Your task to perform on an android device: uninstall "Google Pay: Save, Pay, Manage" Image 0: 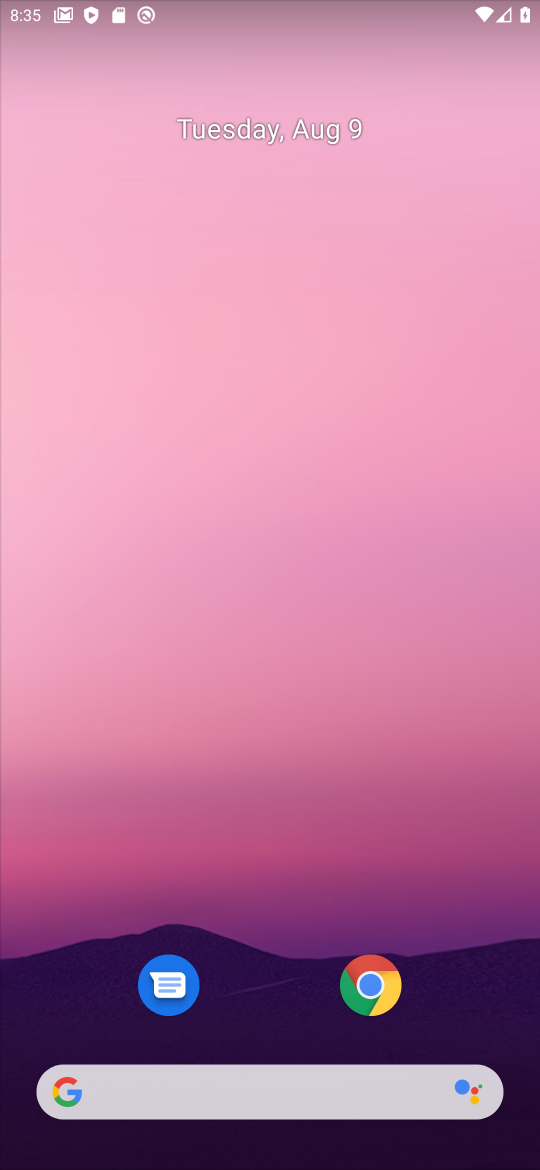
Step 0: drag from (215, 855) to (241, 485)
Your task to perform on an android device: uninstall "Google Pay: Save, Pay, Manage" Image 1: 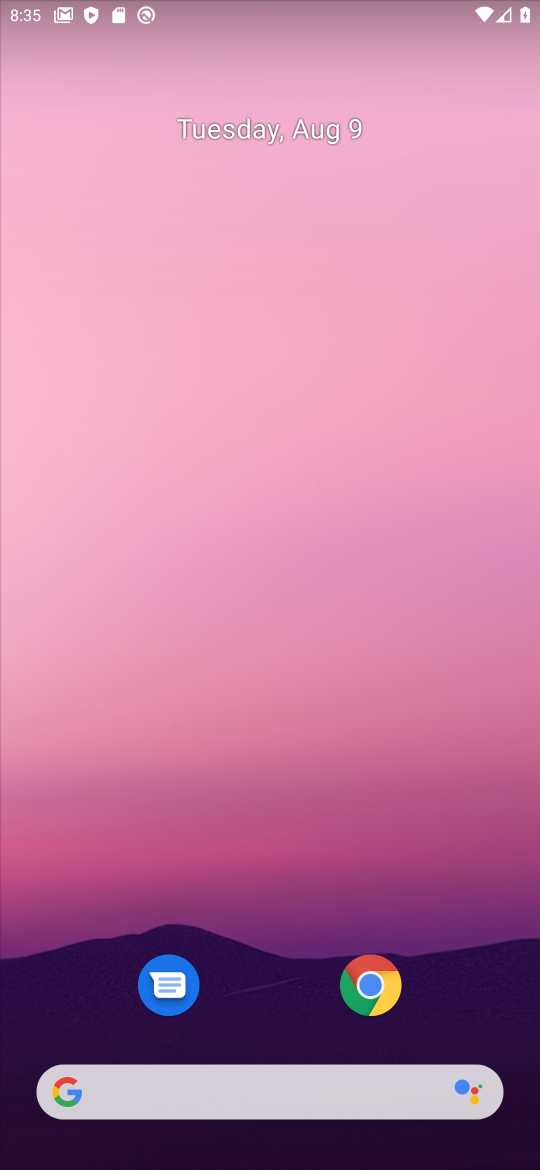
Step 1: drag from (230, 1007) to (276, 98)
Your task to perform on an android device: uninstall "Google Pay: Save, Pay, Manage" Image 2: 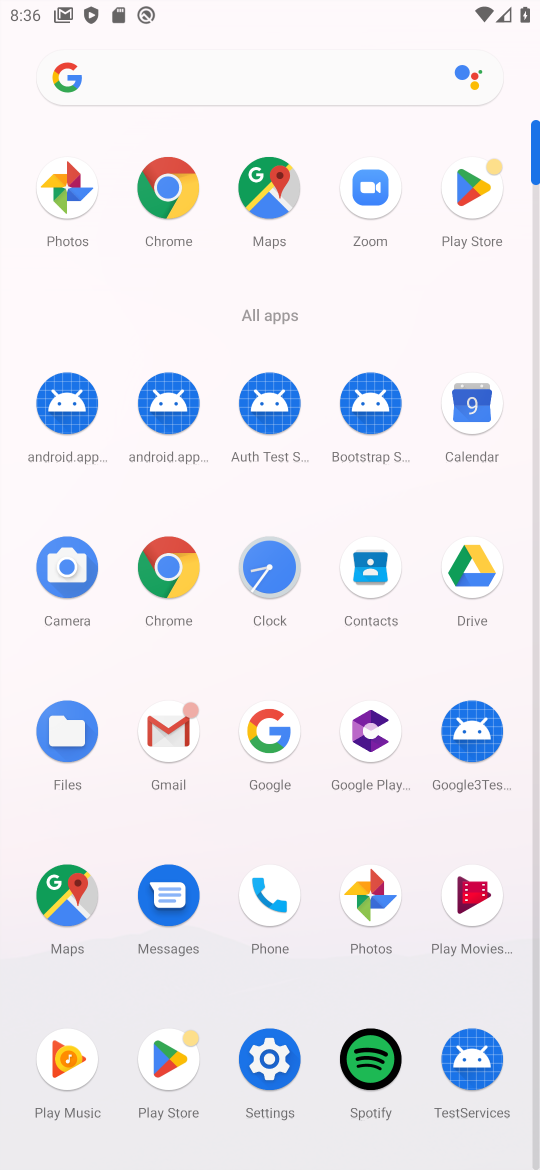
Step 2: click (175, 1064)
Your task to perform on an android device: uninstall "Google Pay: Save, Pay, Manage" Image 3: 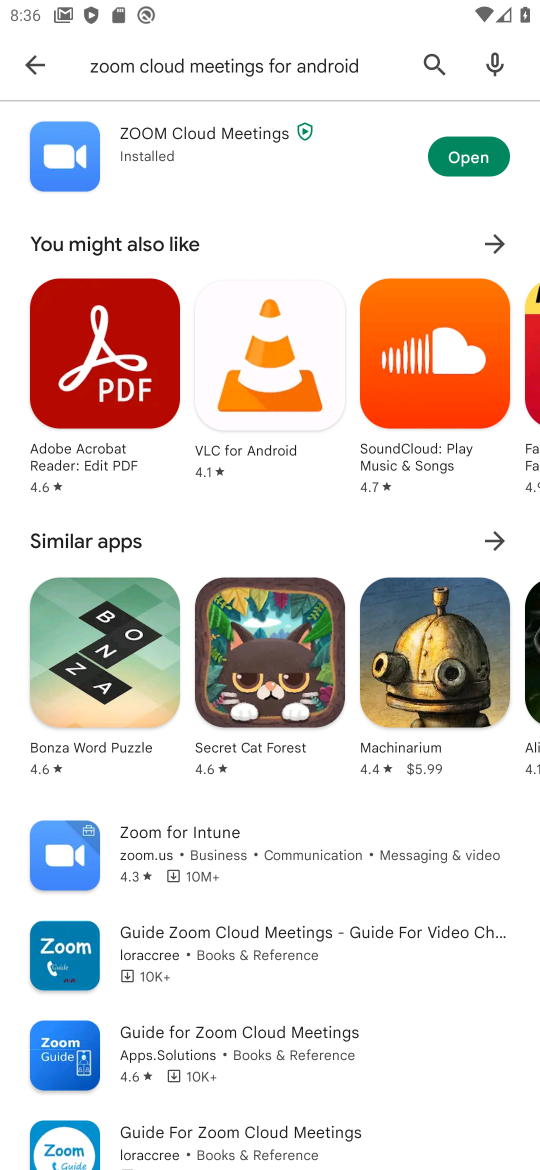
Step 3: click (255, 85)
Your task to perform on an android device: uninstall "Google Pay: Save, Pay, Manage" Image 4: 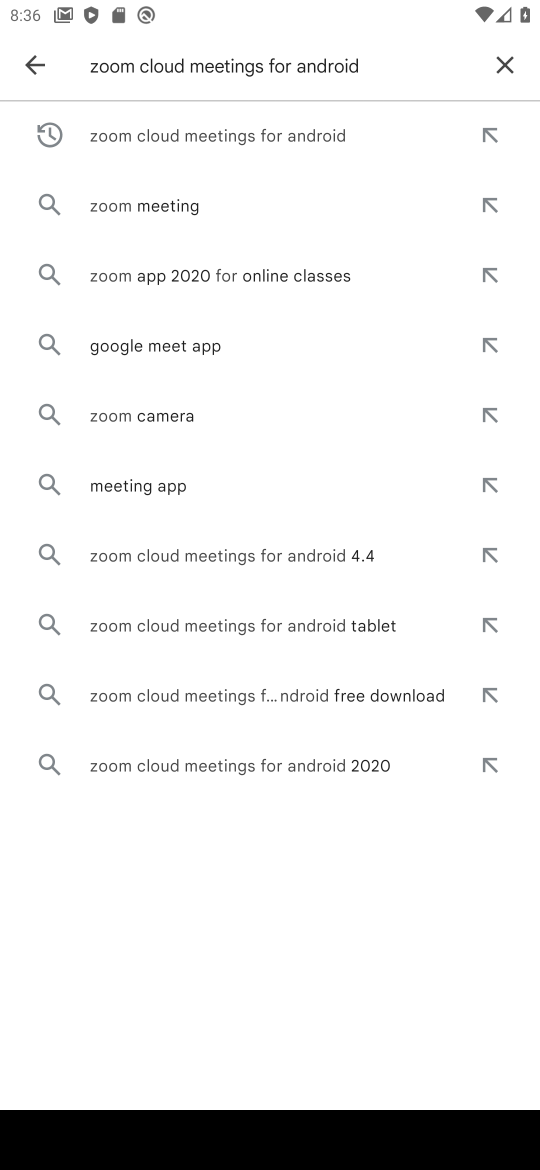
Step 4: click (505, 64)
Your task to perform on an android device: uninstall "Google Pay: Save, Pay, Manage" Image 5: 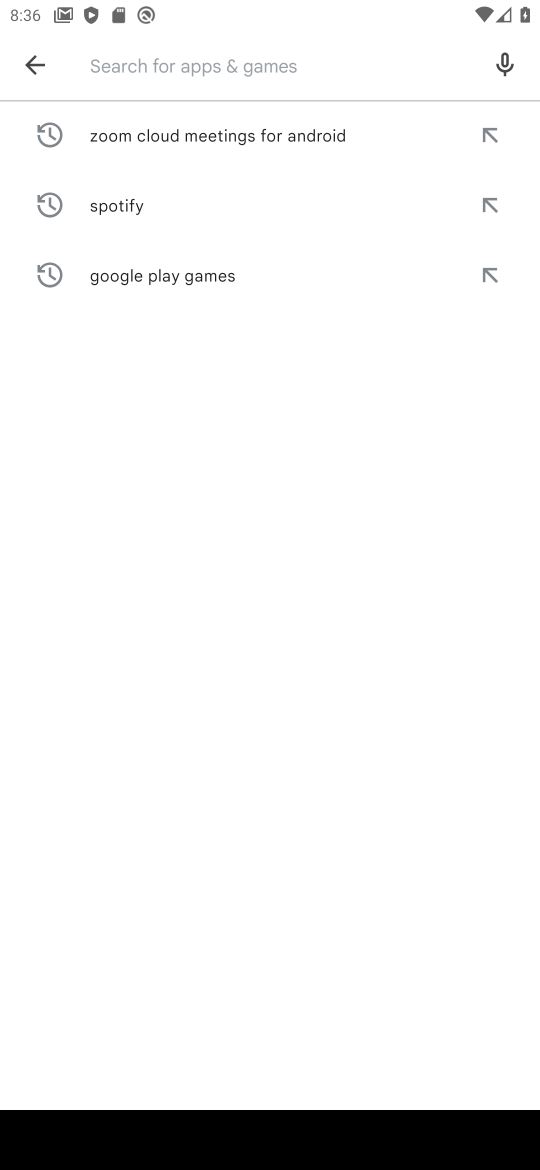
Step 5: type "google pay"
Your task to perform on an android device: uninstall "Google Pay: Save, Pay, Manage" Image 6: 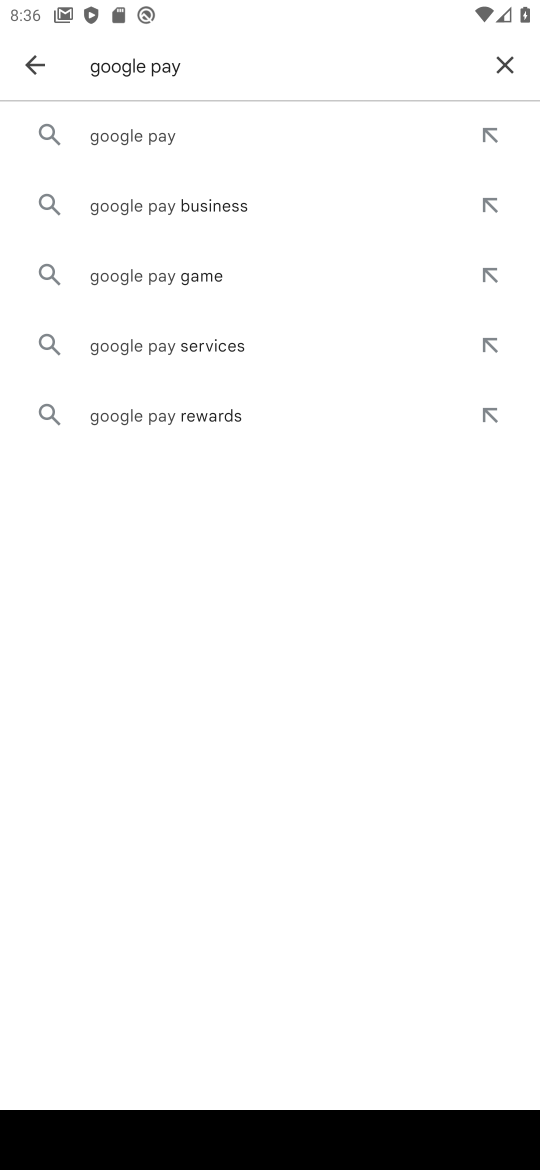
Step 6: click (117, 141)
Your task to perform on an android device: uninstall "Google Pay: Save, Pay, Manage" Image 7: 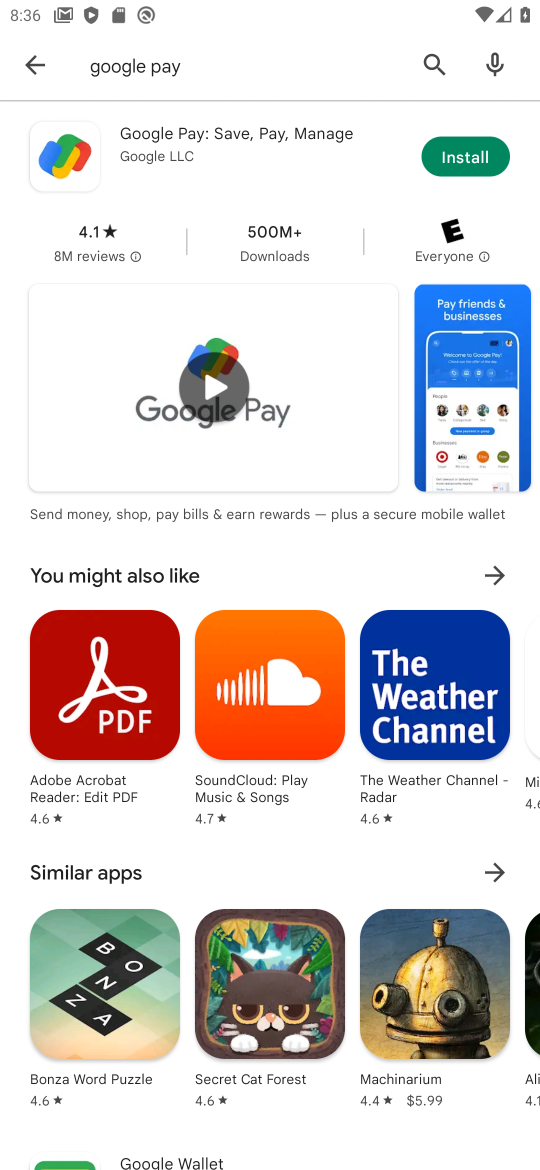
Step 7: task complete